Your task to perform on an android device: find photos in the google photos app Image 0: 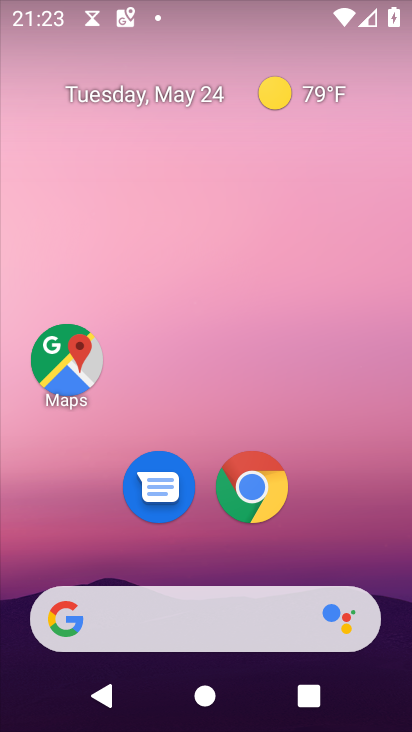
Step 0: press home button
Your task to perform on an android device: find photos in the google photos app Image 1: 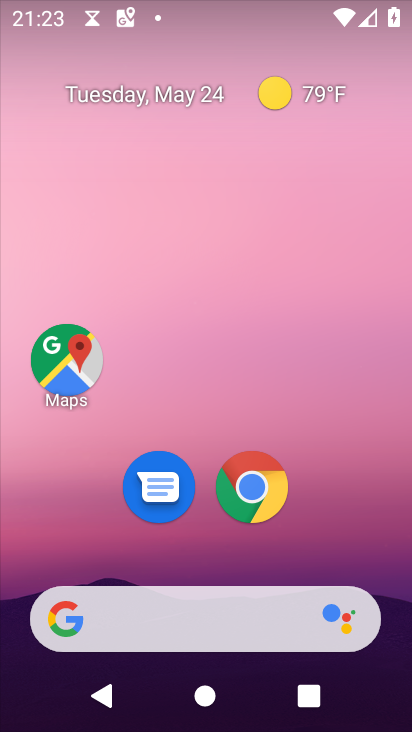
Step 1: drag from (400, 568) to (373, 126)
Your task to perform on an android device: find photos in the google photos app Image 2: 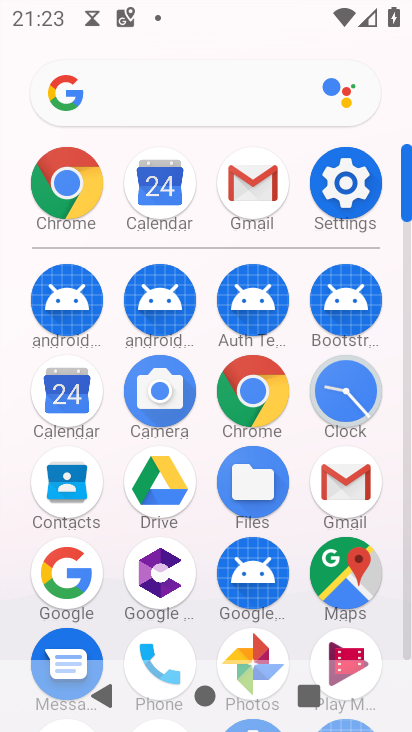
Step 2: click (403, 651)
Your task to perform on an android device: find photos in the google photos app Image 3: 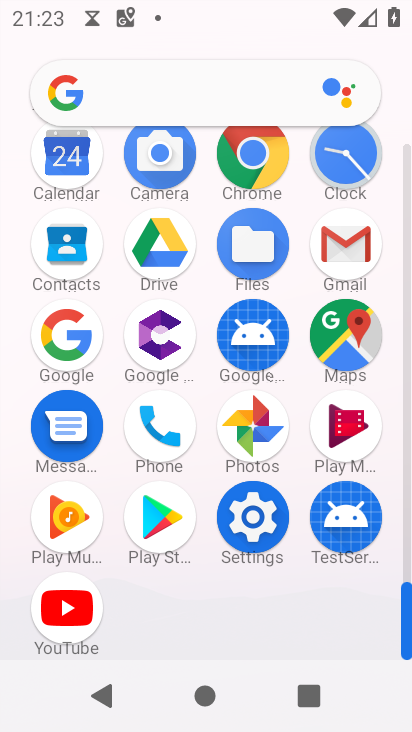
Step 3: click (263, 405)
Your task to perform on an android device: find photos in the google photos app Image 4: 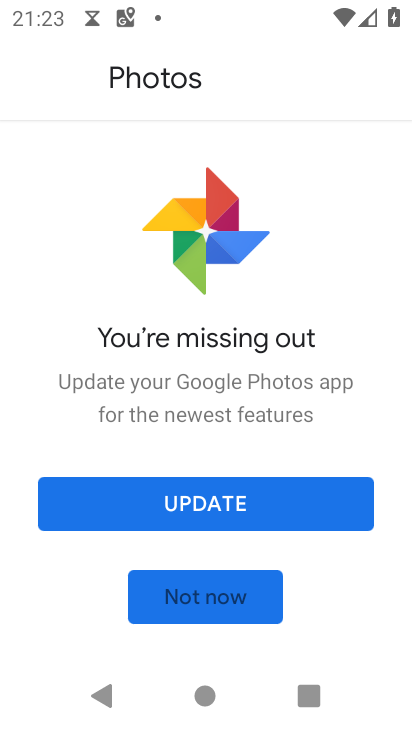
Step 4: click (305, 509)
Your task to perform on an android device: find photos in the google photos app Image 5: 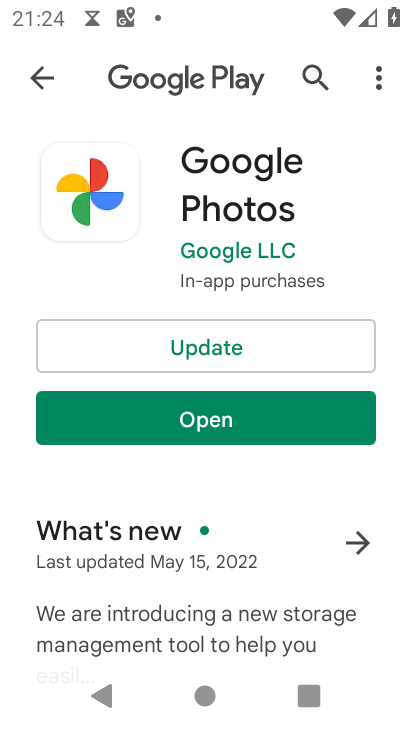
Step 5: click (341, 327)
Your task to perform on an android device: find photos in the google photos app Image 6: 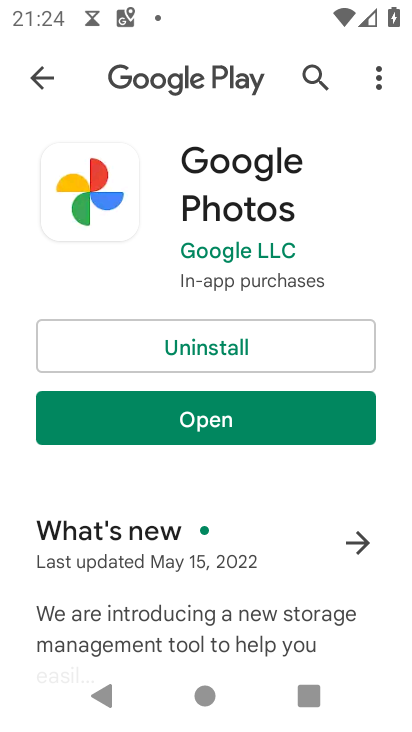
Step 6: click (249, 414)
Your task to perform on an android device: find photos in the google photos app Image 7: 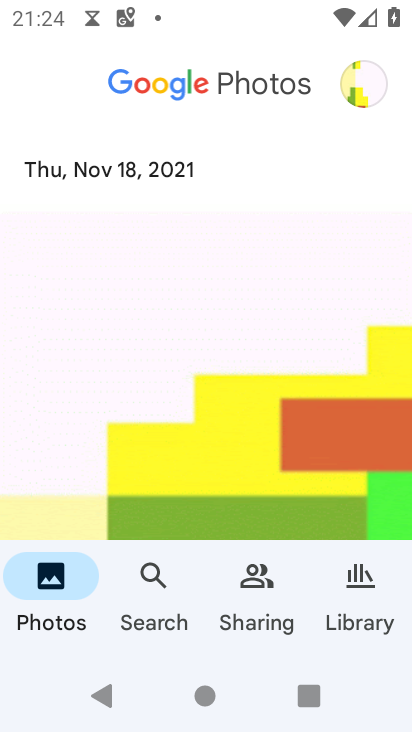
Step 7: task complete